Your task to perform on an android device: Open the web browser Image 0: 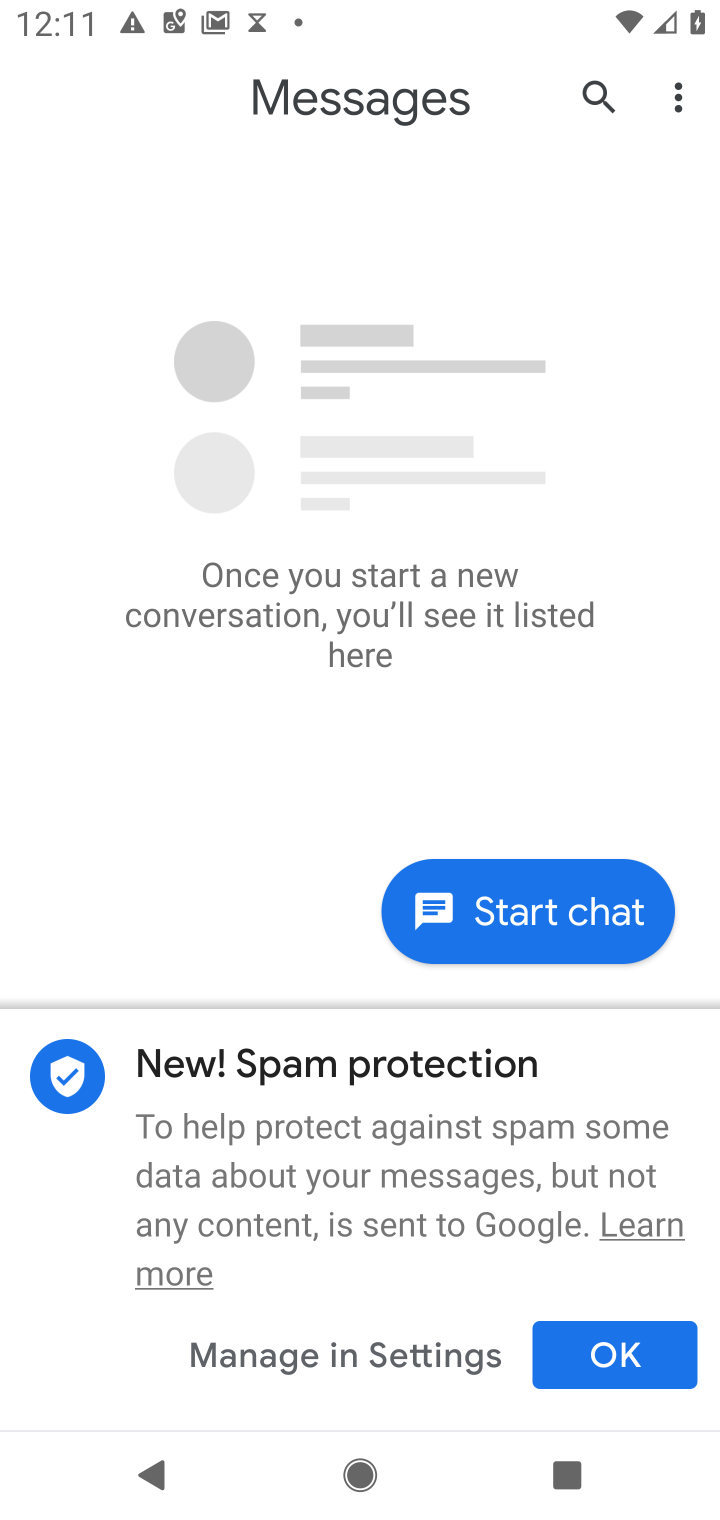
Step 0: press home button
Your task to perform on an android device: Open the web browser Image 1: 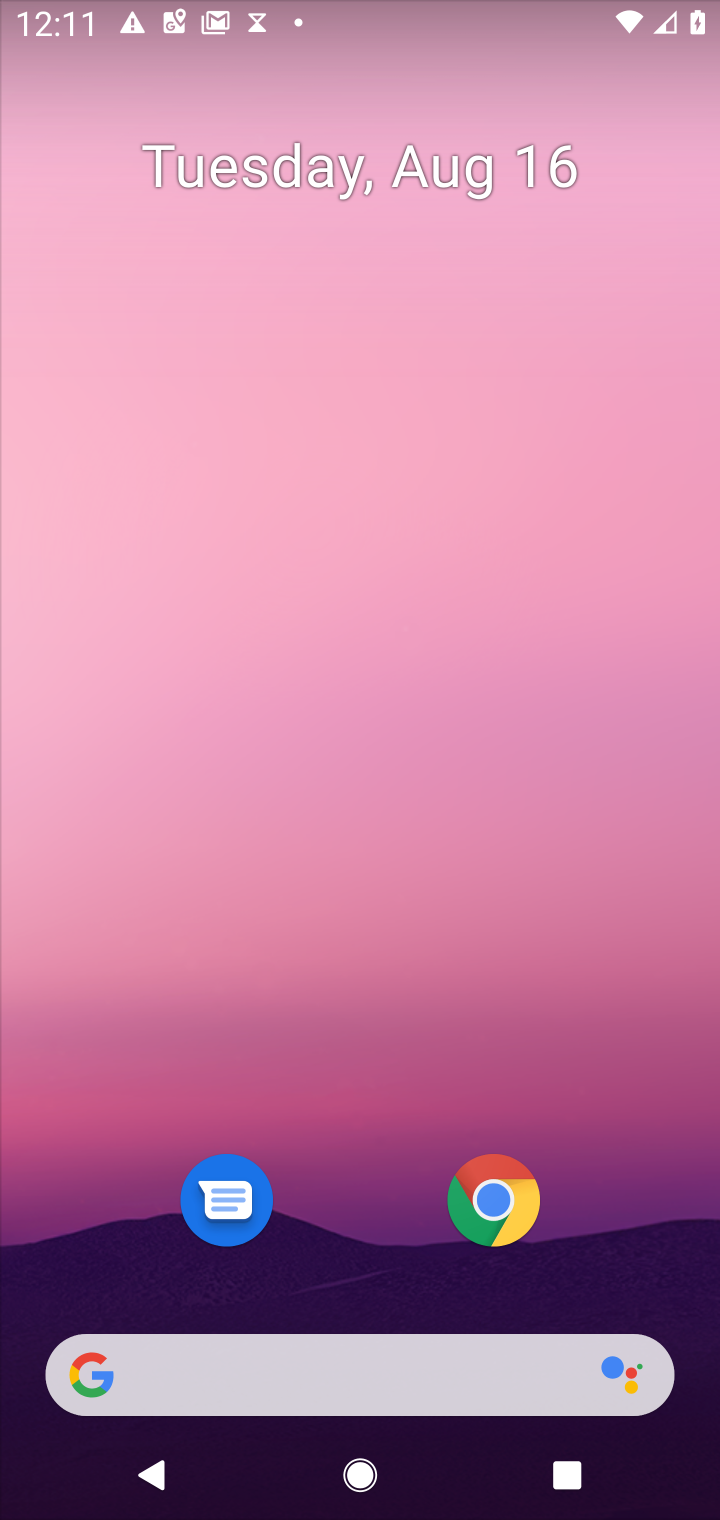
Step 1: click (462, 1230)
Your task to perform on an android device: Open the web browser Image 2: 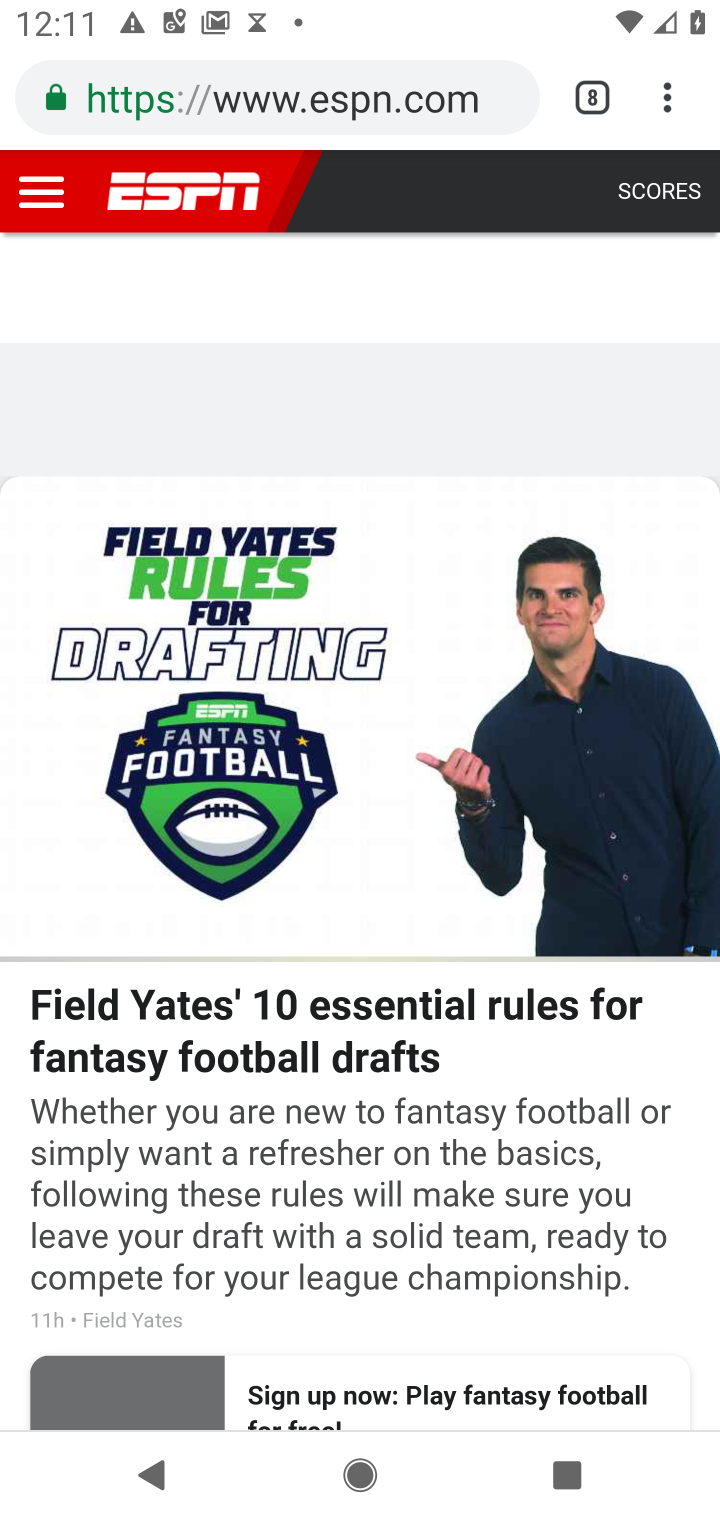
Step 2: task complete